Your task to perform on an android device: check android version Image 0: 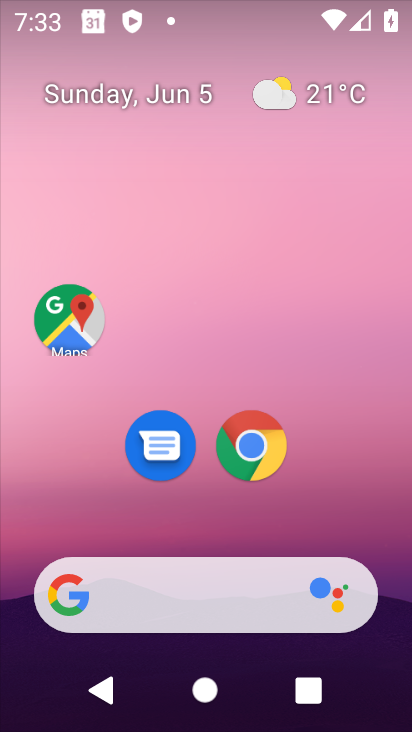
Step 0: drag from (331, 504) to (320, 103)
Your task to perform on an android device: check android version Image 1: 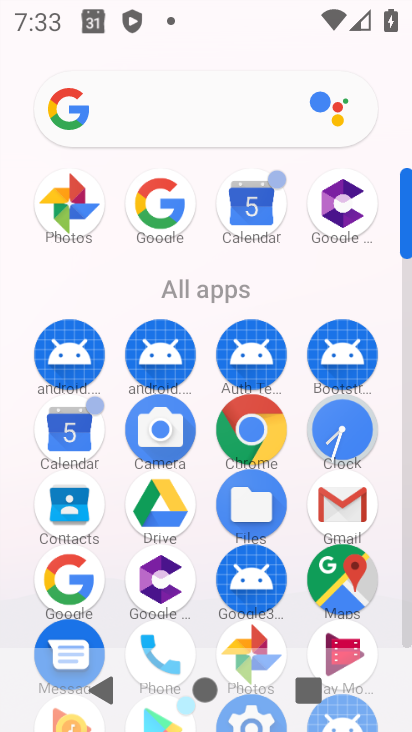
Step 1: drag from (113, 618) to (120, 348)
Your task to perform on an android device: check android version Image 2: 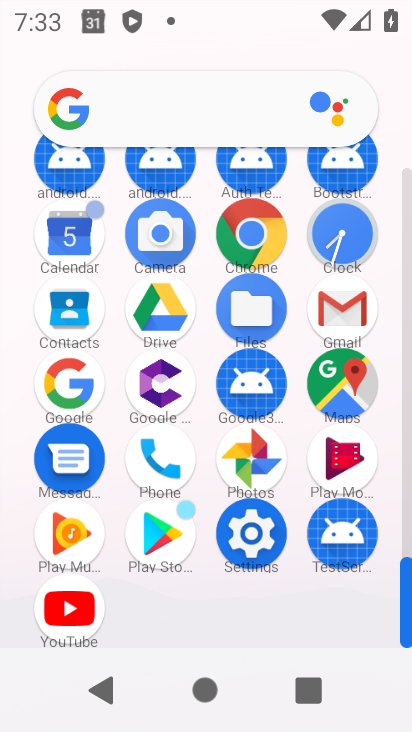
Step 2: click (259, 510)
Your task to perform on an android device: check android version Image 3: 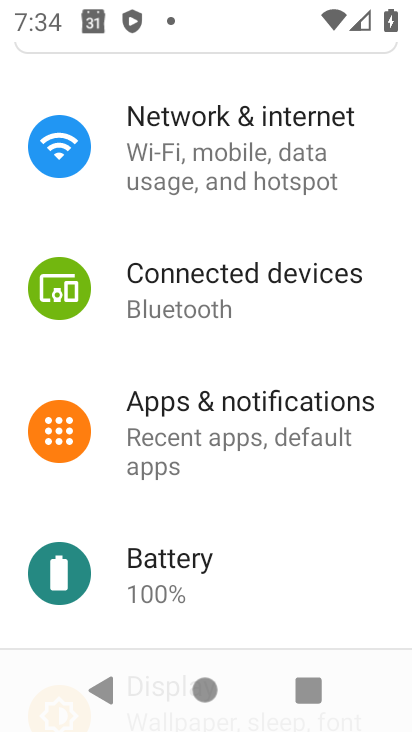
Step 3: drag from (280, 596) to (322, 54)
Your task to perform on an android device: check android version Image 4: 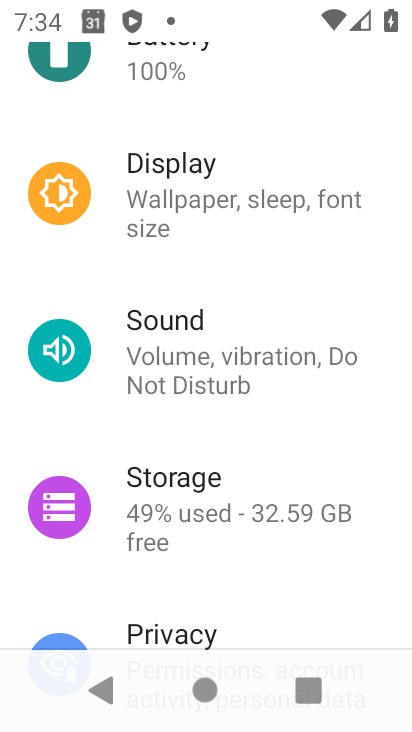
Step 4: drag from (298, 593) to (331, 56)
Your task to perform on an android device: check android version Image 5: 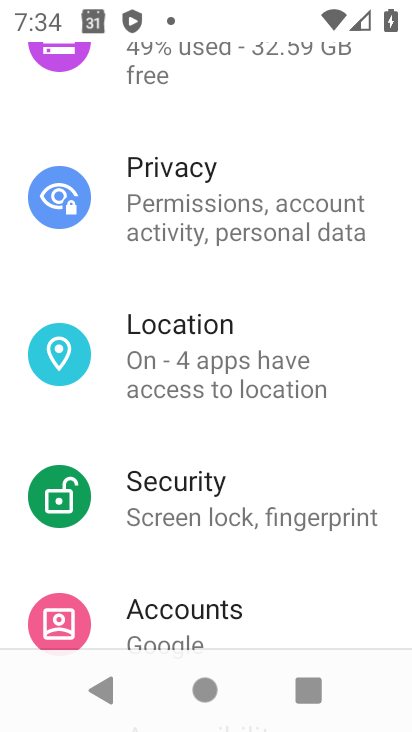
Step 5: drag from (290, 608) to (342, 71)
Your task to perform on an android device: check android version Image 6: 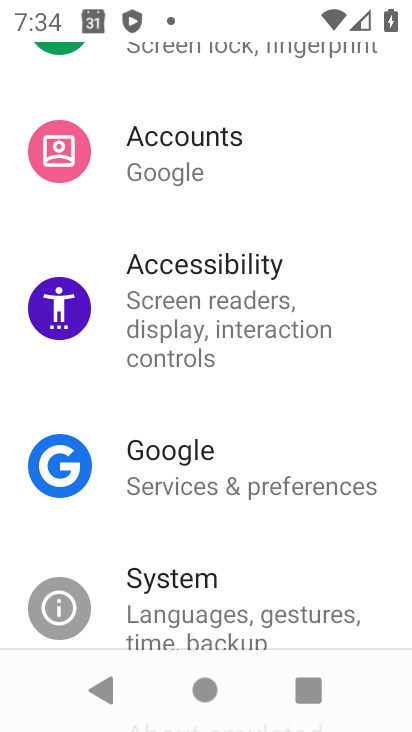
Step 6: drag from (289, 526) to (319, 144)
Your task to perform on an android device: check android version Image 7: 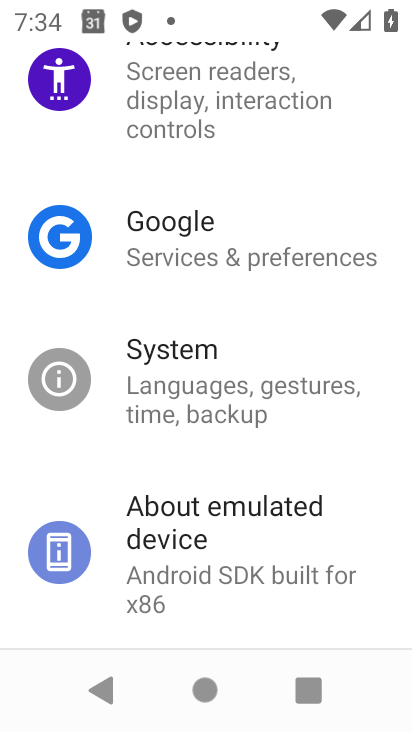
Step 7: click (230, 545)
Your task to perform on an android device: check android version Image 8: 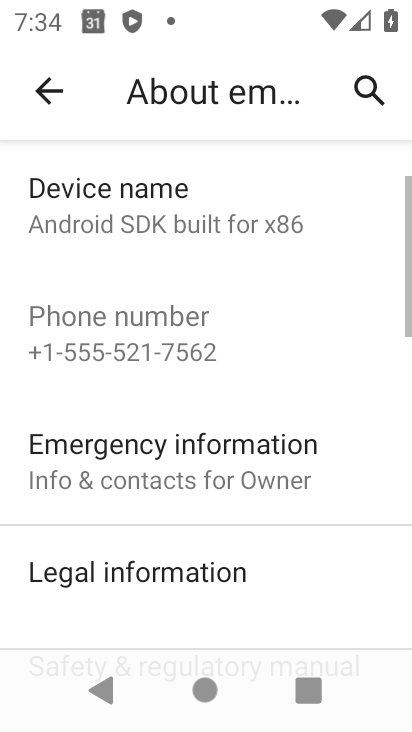
Step 8: task complete